Your task to perform on an android device: Go to wifi settings Image 0: 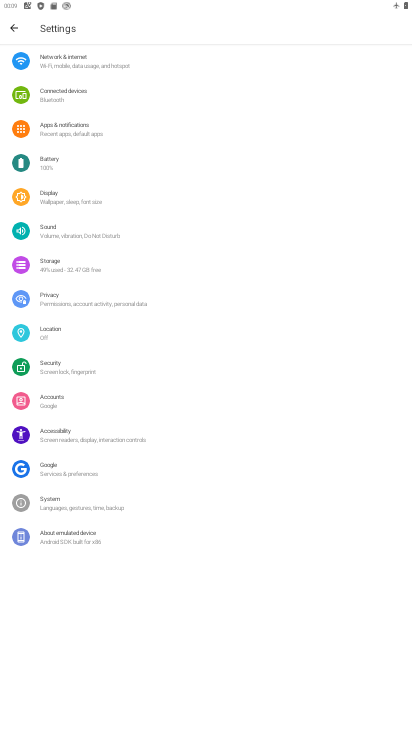
Step 0: click (57, 69)
Your task to perform on an android device: Go to wifi settings Image 1: 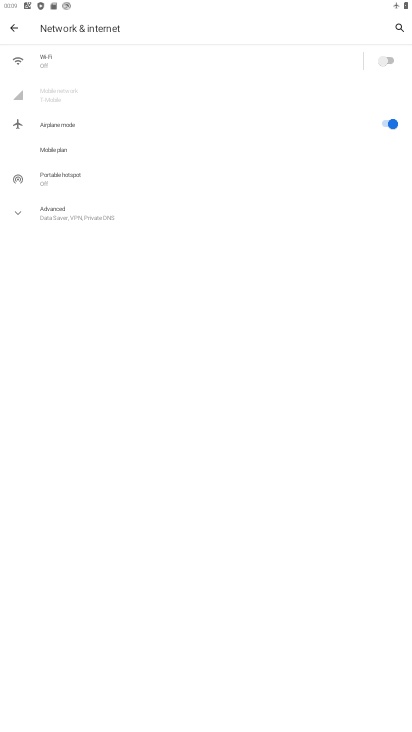
Step 1: click (76, 60)
Your task to perform on an android device: Go to wifi settings Image 2: 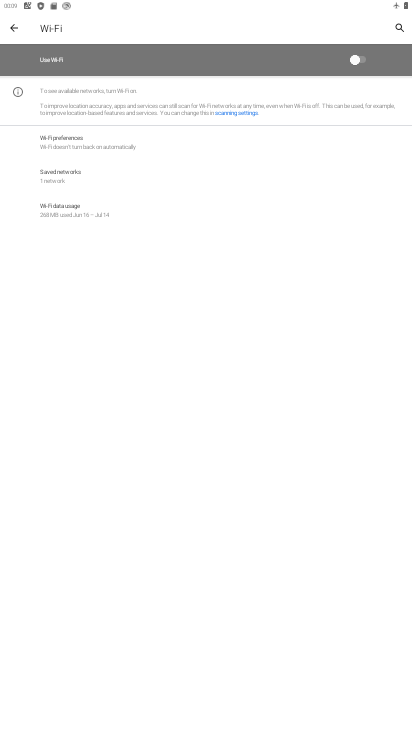
Step 2: task complete